Your task to perform on an android device: check google app version Image 0: 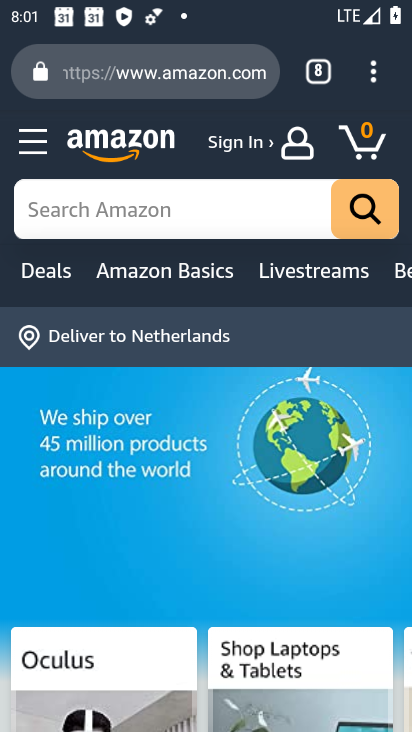
Step 0: press home button
Your task to perform on an android device: check google app version Image 1: 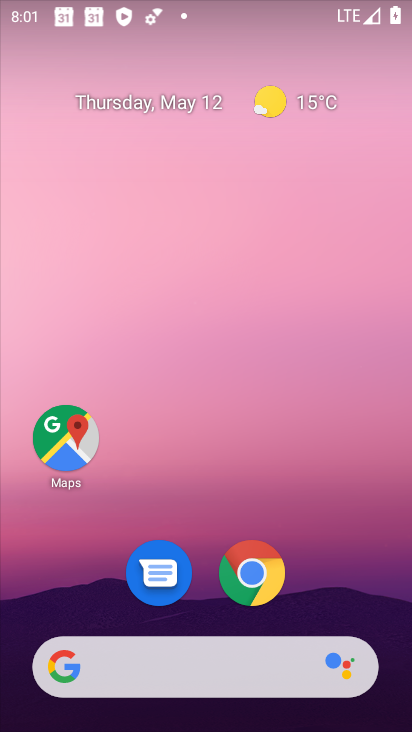
Step 1: click (144, 658)
Your task to perform on an android device: check google app version Image 2: 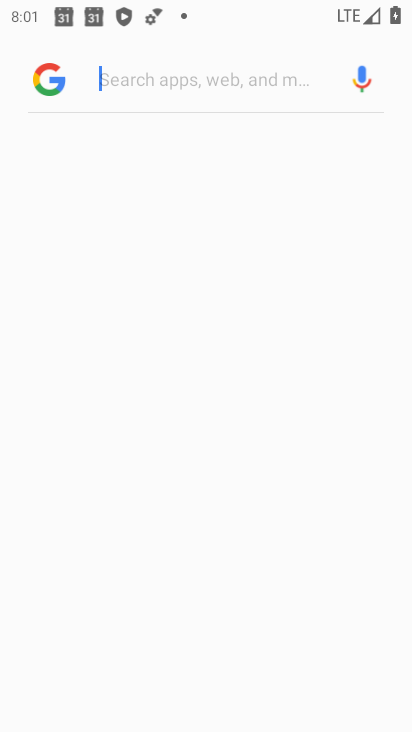
Step 2: click (144, 658)
Your task to perform on an android device: check google app version Image 3: 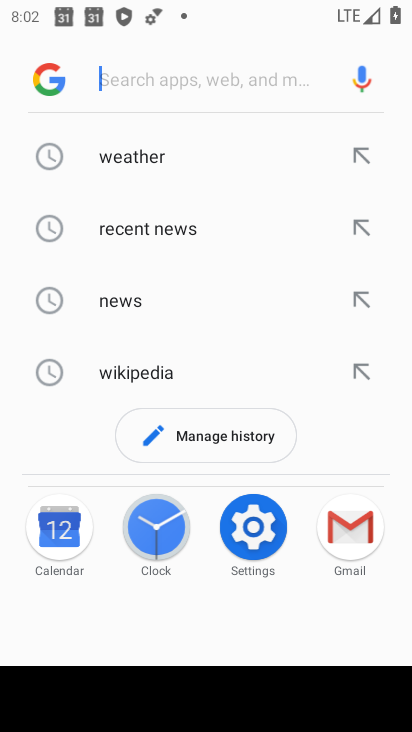
Step 3: click (35, 77)
Your task to perform on an android device: check google app version Image 4: 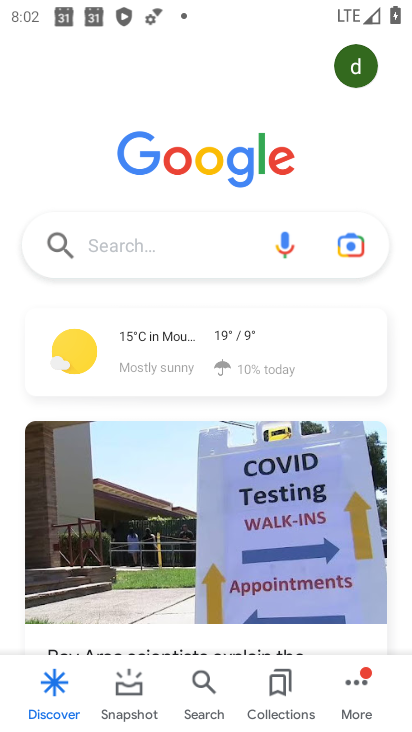
Step 4: click (353, 681)
Your task to perform on an android device: check google app version Image 5: 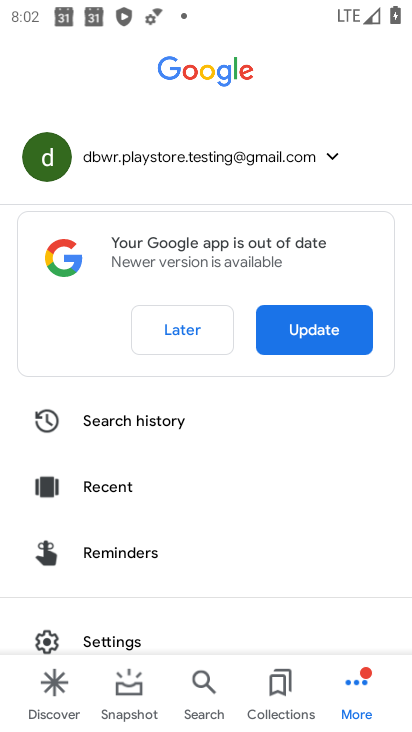
Step 5: drag from (239, 553) to (178, 284)
Your task to perform on an android device: check google app version Image 6: 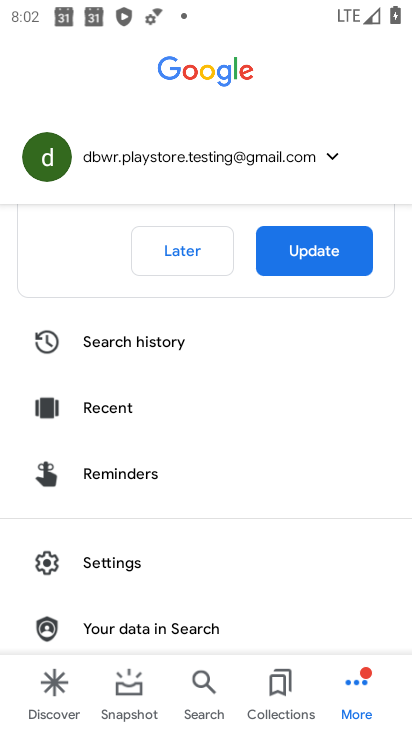
Step 6: click (111, 559)
Your task to perform on an android device: check google app version Image 7: 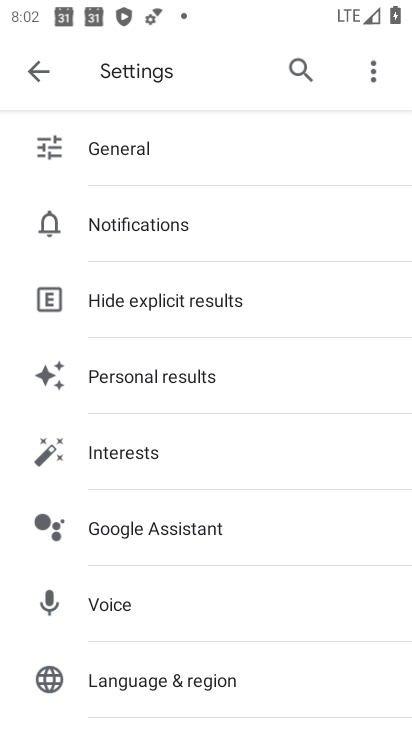
Step 7: drag from (154, 591) to (100, 288)
Your task to perform on an android device: check google app version Image 8: 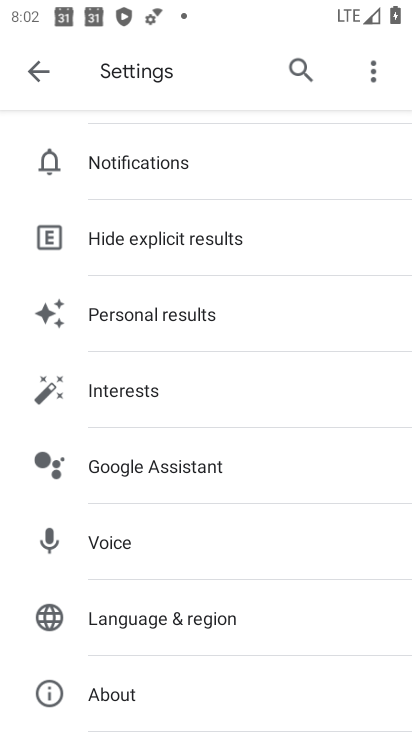
Step 8: drag from (164, 649) to (129, 394)
Your task to perform on an android device: check google app version Image 9: 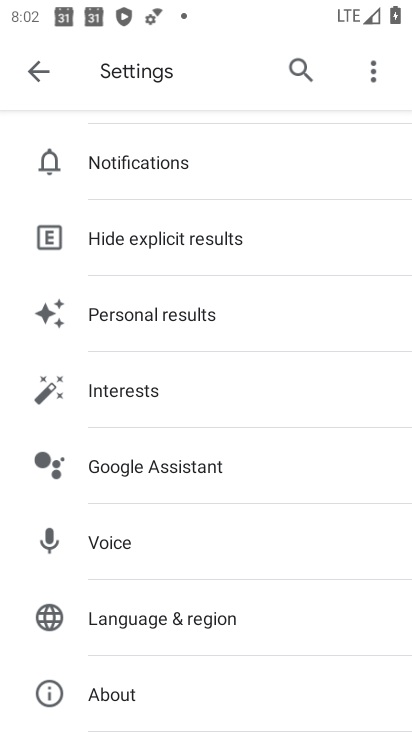
Step 9: click (110, 700)
Your task to perform on an android device: check google app version Image 10: 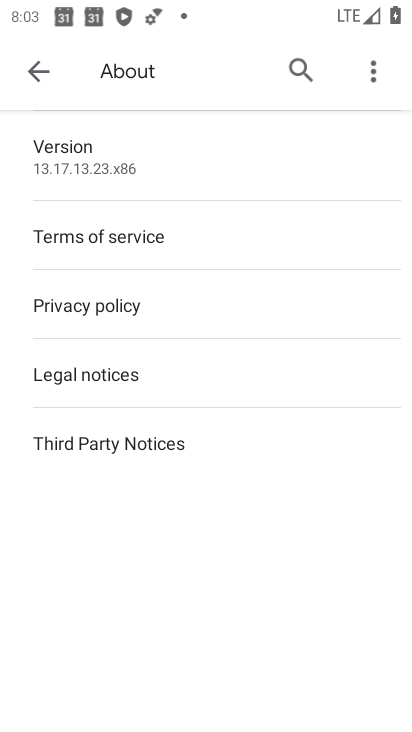
Step 10: task complete